Your task to perform on an android device: Go to Google maps Image 0: 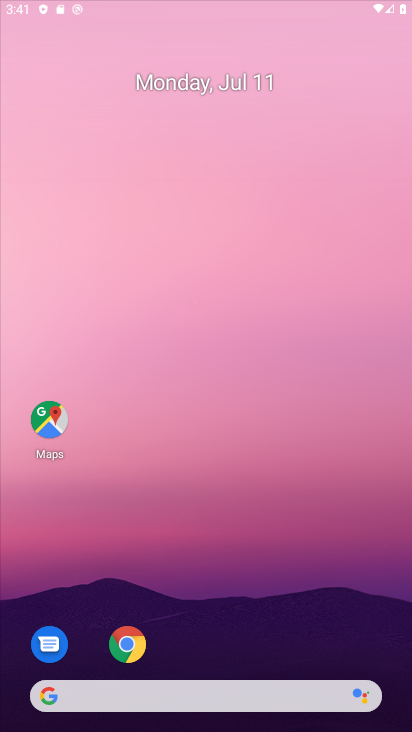
Step 0: press home button
Your task to perform on an android device: Go to Google maps Image 1: 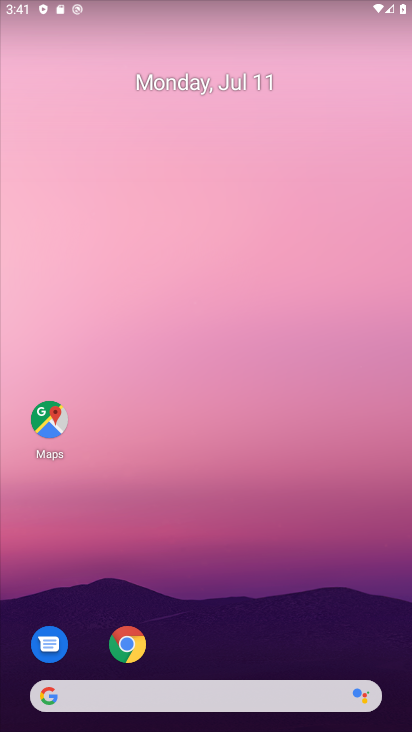
Step 1: click (50, 416)
Your task to perform on an android device: Go to Google maps Image 2: 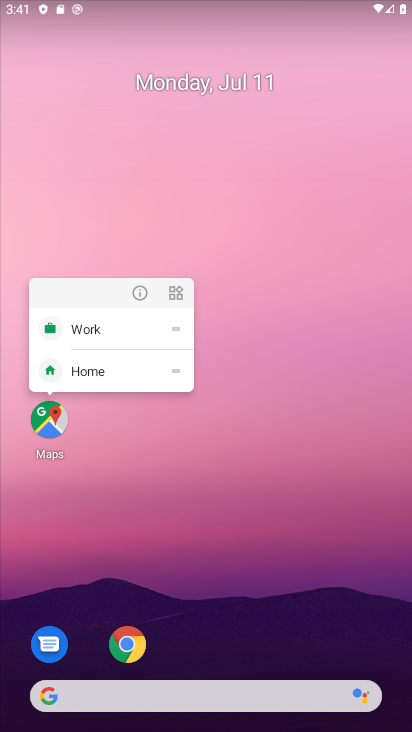
Step 2: click (54, 417)
Your task to perform on an android device: Go to Google maps Image 3: 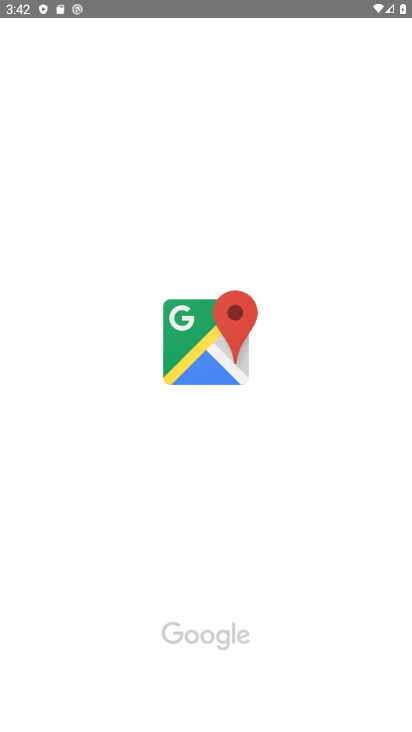
Step 3: task complete